Your task to perform on an android device: Go to notification settings Image 0: 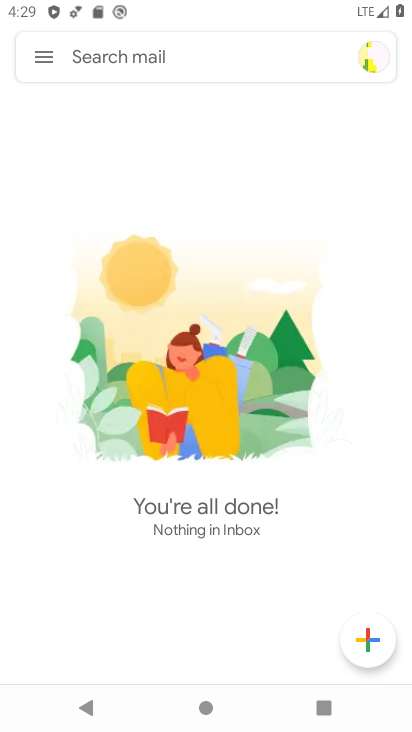
Step 0: press back button
Your task to perform on an android device: Go to notification settings Image 1: 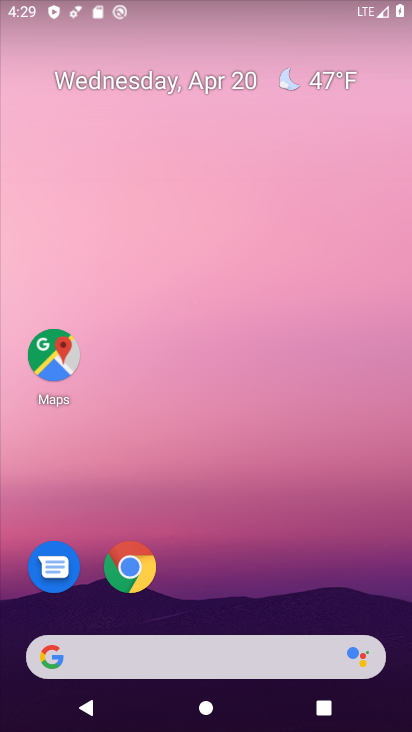
Step 1: drag from (240, 574) to (226, 11)
Your task to perform on an android device: Go to notification settings Image 2: 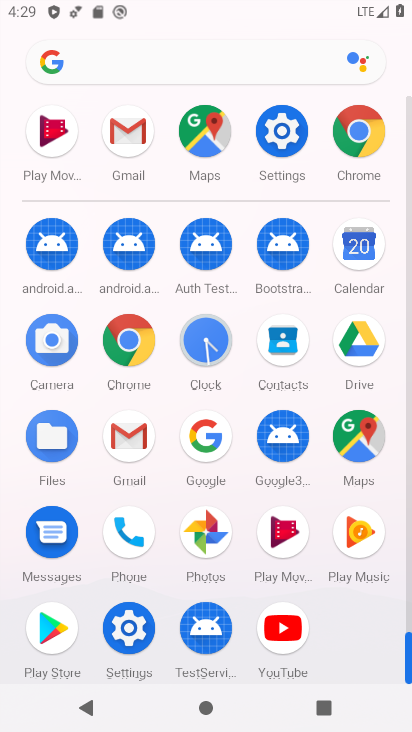
Step 2: click (283, 131)
Your task to perform on an android device: Go to notification settings Image 3: 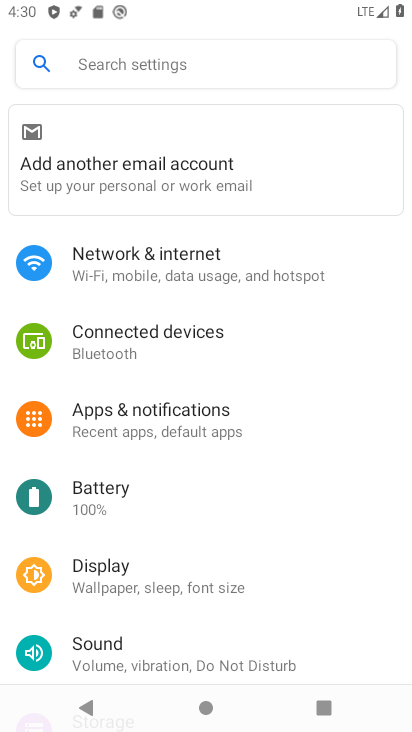
Step 3: click (150, 421)
Your task to perform on an android device: Go to notification settings Image 4: 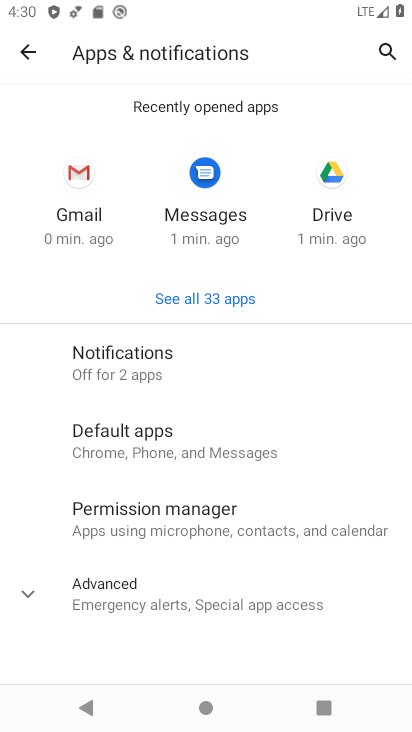
Step 4: click (163, 364)
Your task to perform on an android device: Go to notification settings Image 5: 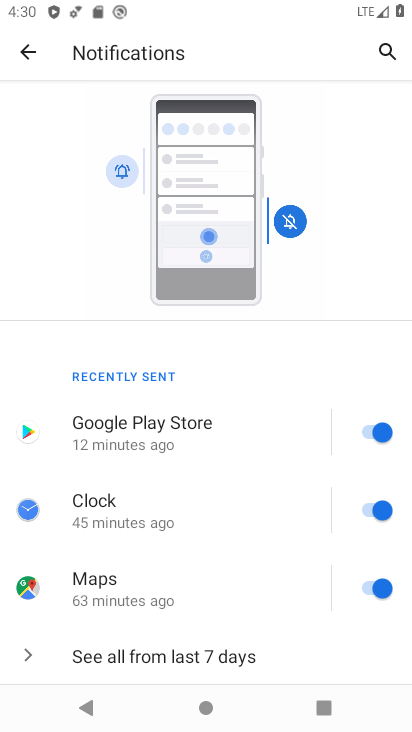
Step 5: drag from (224, 534) to (241, 112)
Your task to perform on an android device: Go to notification settings Image 6: 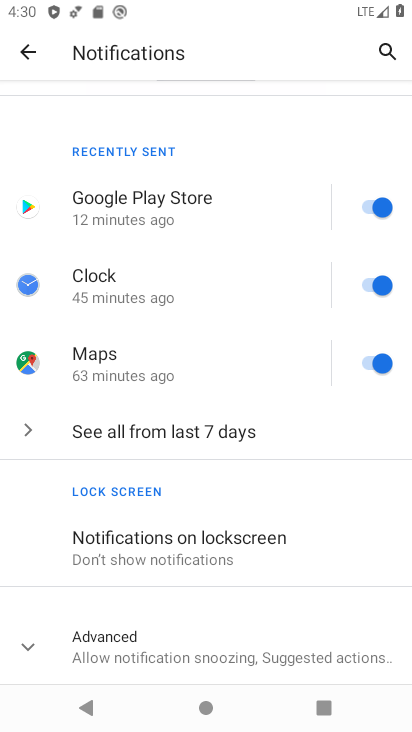
Step 6: click (46, 634)
Your task to perform on an android device: Go to notification settings Image 7: 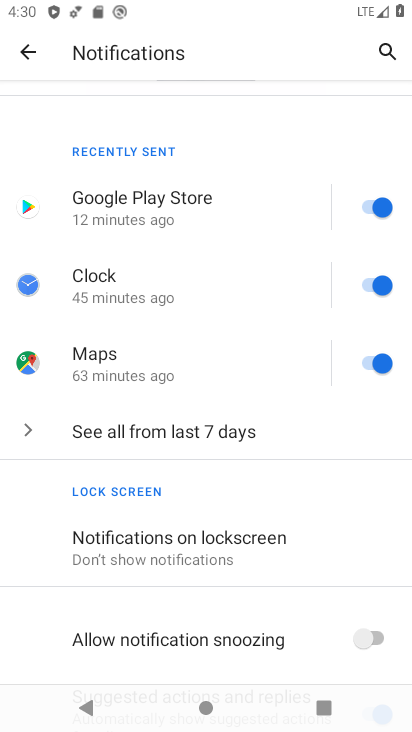
Step 7: task complete